Your task to perform on an android device: Show me popular videos on Youtube Image 0: 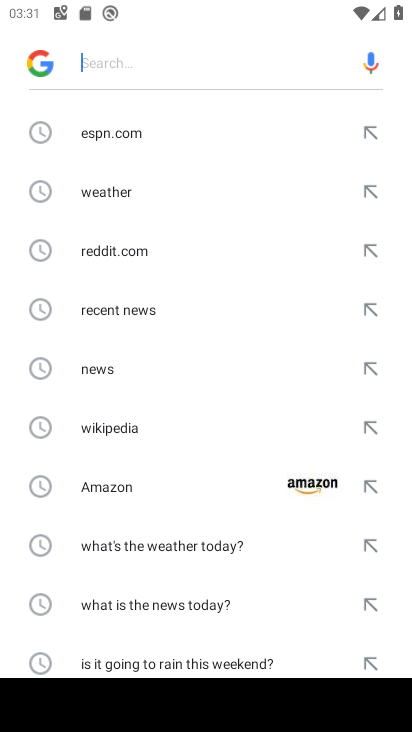
Step 0: press home button
Your task to perform on an android device: Show me popular videos on Youtube Image 1: 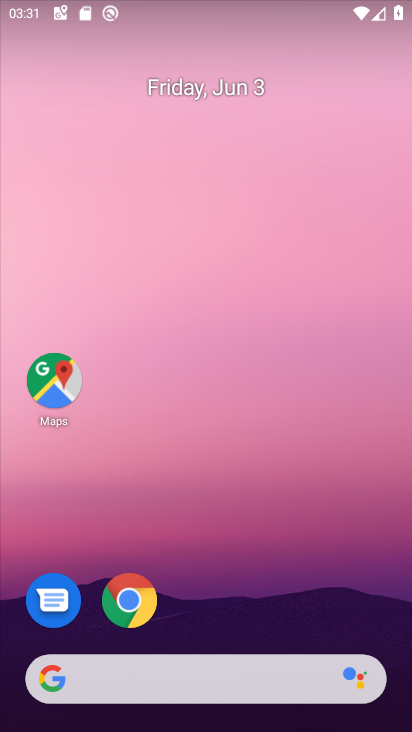
Step 1: drag from (321, 551) to (306, 176)
Your task to perform on an android device: Show me popular videos on Youtube Image 2: 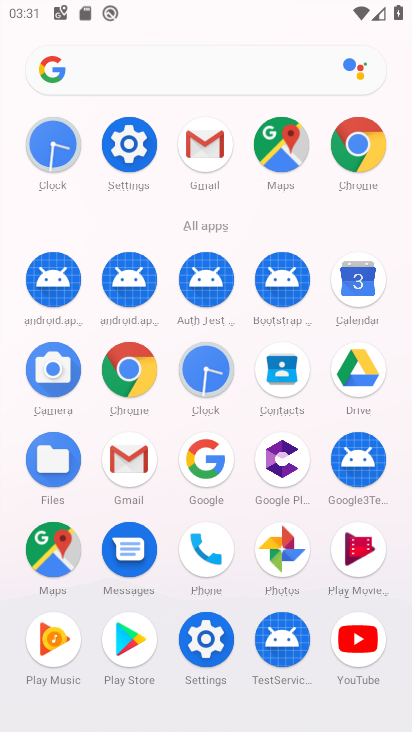
Step 2: click (365, 637)
Your task to perform on an android device: Show me popular videos on Youtube Image 3: 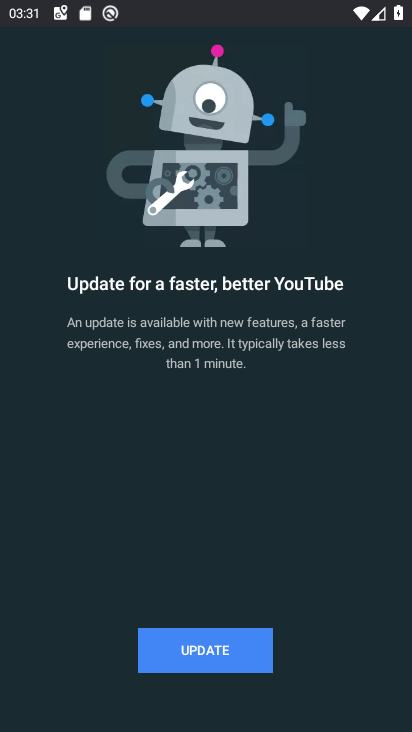
Step 3: click (243, 643)
Your task to perform on an android device: Show me popular videos on Youtube Image 4: 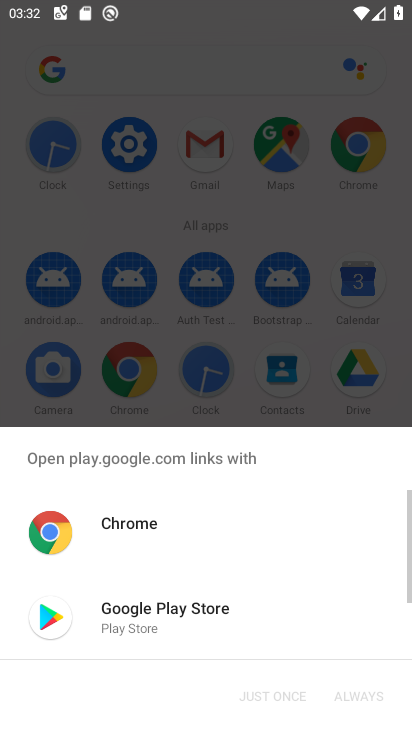
Step 4: click (155, 604)
Your task to perform on an android device: Show me popular videos on Youtube Image 5: 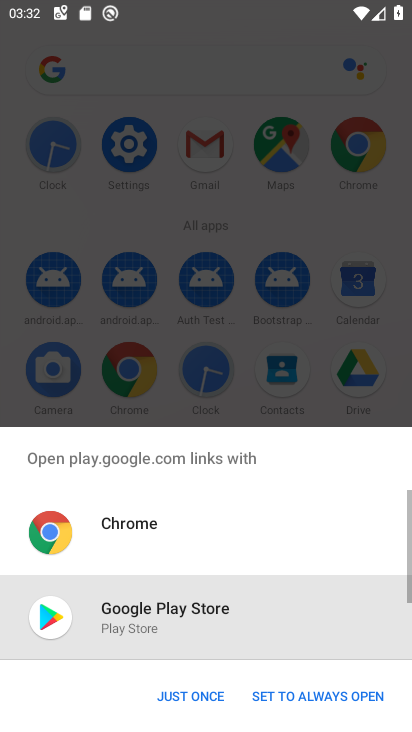
Step 5: click (209, 703)
Your task to perform on an android device: Show me popular videos on Youtube Image 6: 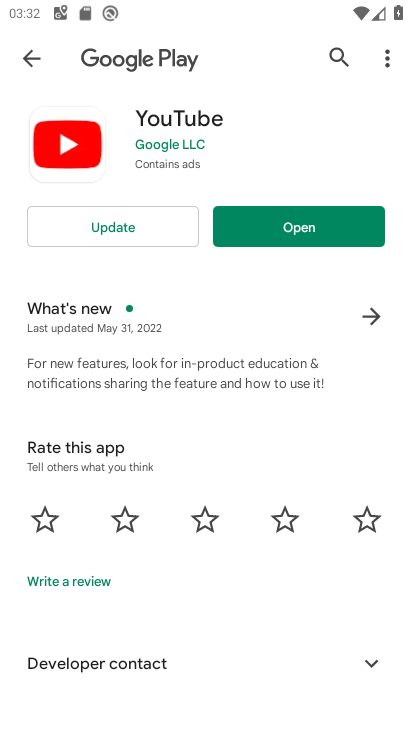
Step 6: click (140, 238)
Your task to perform on an android device: Show me popular videos on Youtube Image 7: 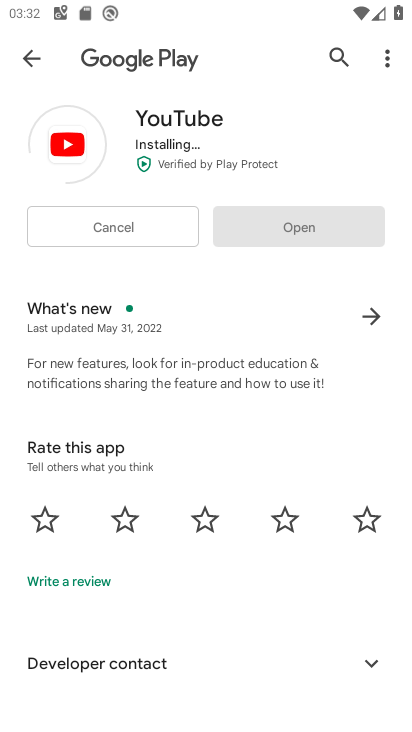
Step 7: task complete